Your task to perform on an android device: toggle airplane mode Image 0: 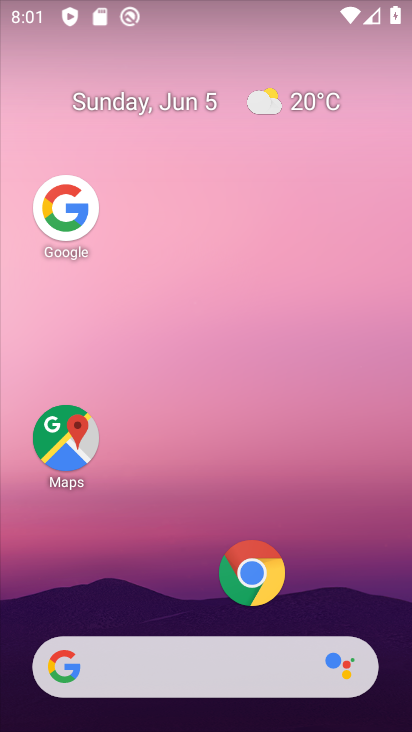
Step 0: drag from (212, 616) to (320, 12)
Your task to perform on an android device: toggle airplane mode Image 1: 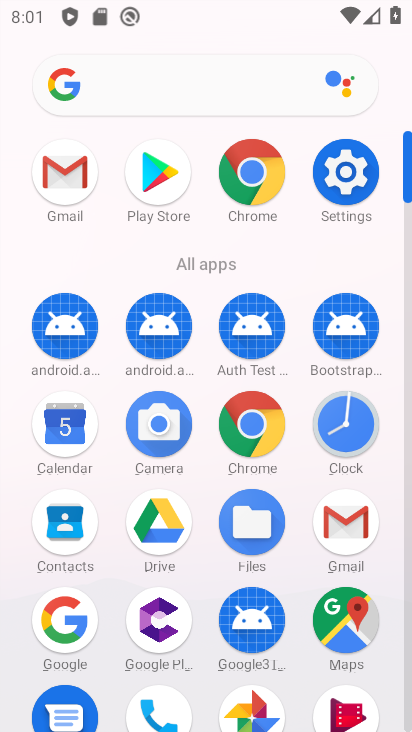
Step 1: click (362, 167)
Your task to perform on an android device: toggle airplane mode Image 2: 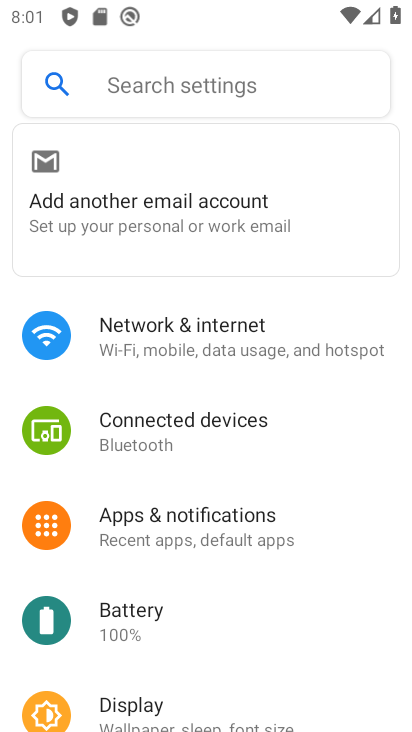
Step 2: click (204, 339)
Your task to perform on an android device: toggle airplane mode Image 3: 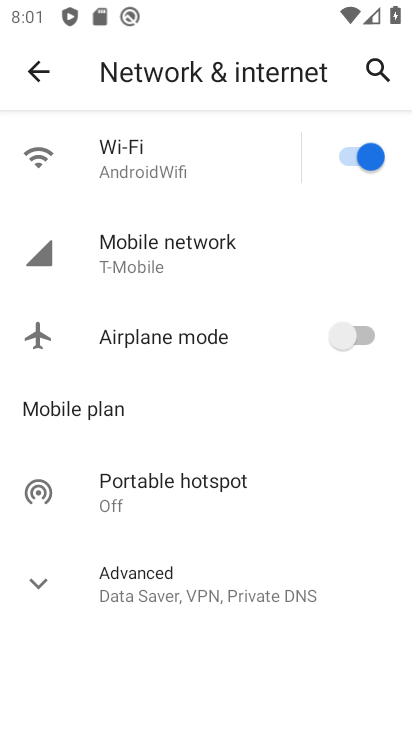
Step 3: click (373, 336)
Your task to perform on an android device: toggle airplane mode Image 4: 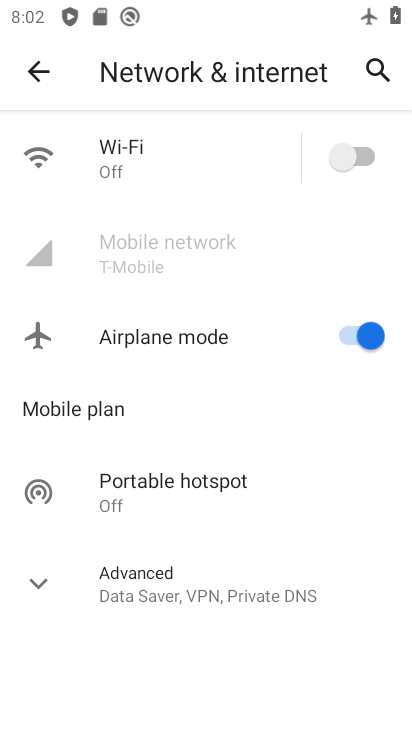
Step 4: task complete